Your task to perform on an android device: manage bookmarks in the chrome app Image 0: 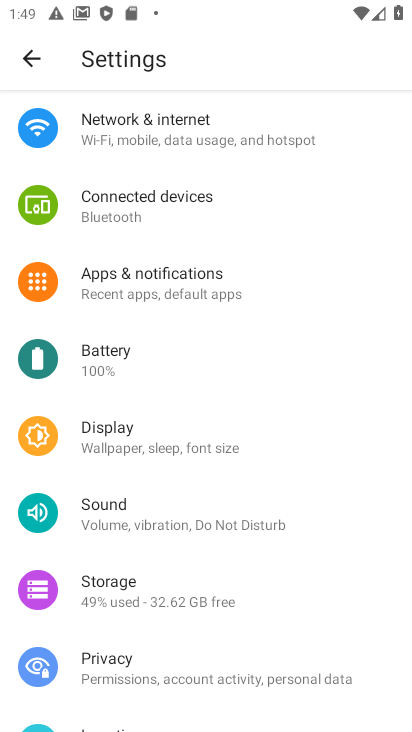
Step 0: press home button
Your task to perform on an android device: manage bookmarks in the chrome app Image 1: 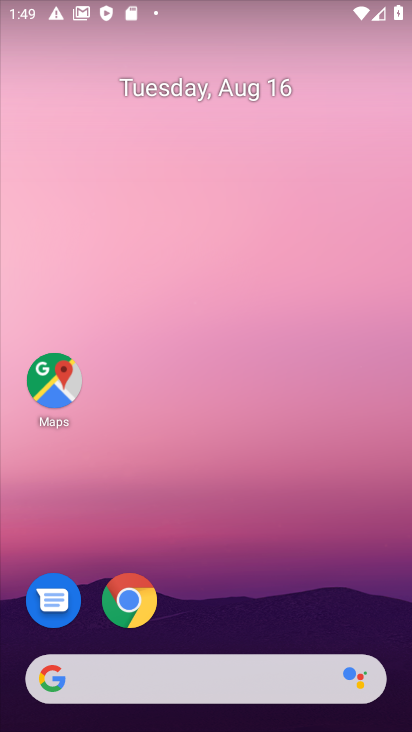
Step 1: click (141, 626)
Your task to perform on an android device: manage bookmarks in the chrome app Image 2: 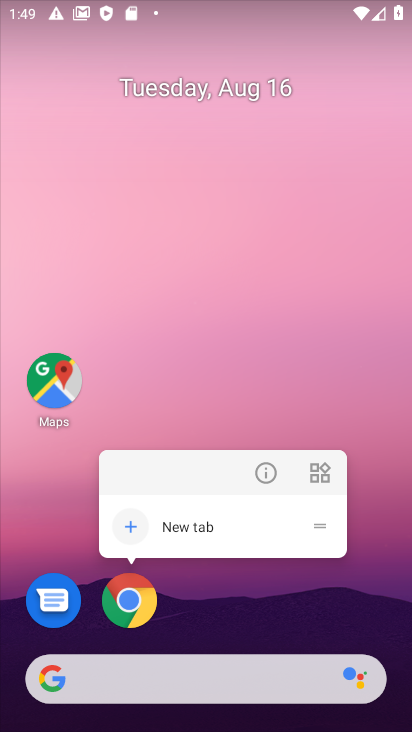
Step 2: click (111, 591)
Your task to perform on an android device: manage bookmarks in the chrome app Image 3: 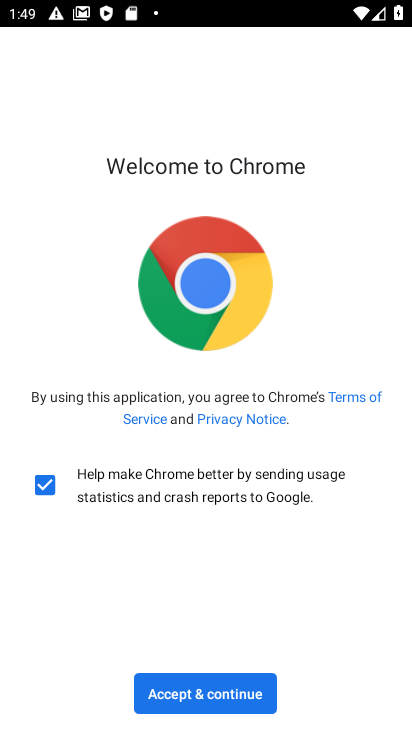
Step 3: click (217, 700)
Your task to perform on an android device: manage bookmarks in the chrome app Image 4: 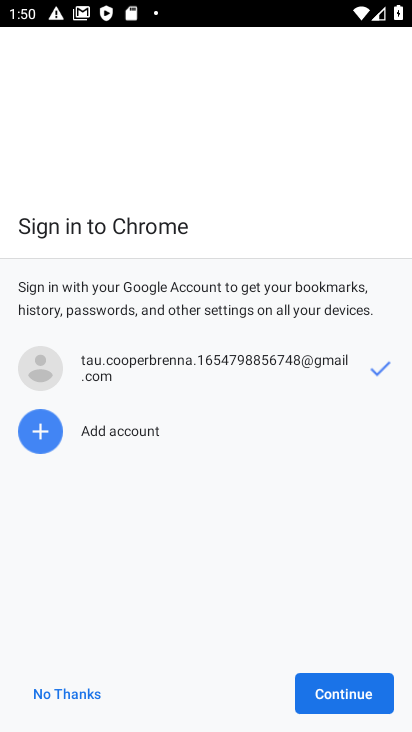
Step 4: click (331, 695)
Your task to perform on an android device: manage bookmarks in the chrome app Image 5: 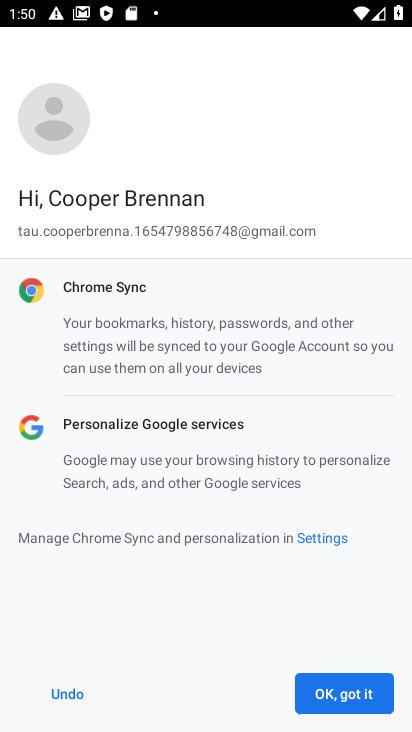
Step 5: click (348, 691)
Your task to perform on an android device: manage bookmarks in the chrome app Image 6: 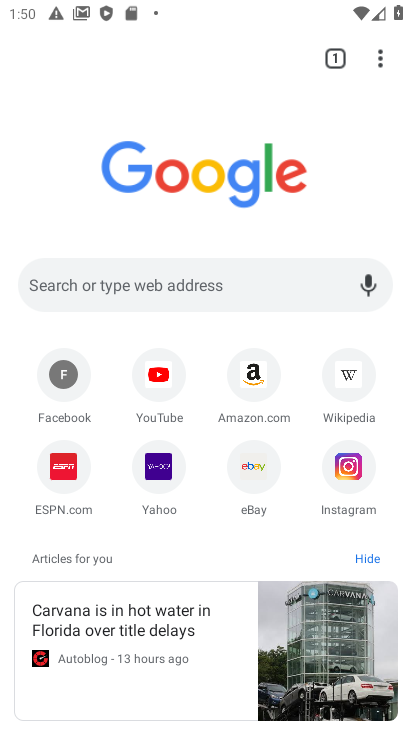
Step 6: drag from (378, 64) to (222, 224)
Your task to perform on an android device: manage bookmarks in the chrome app Image 7: 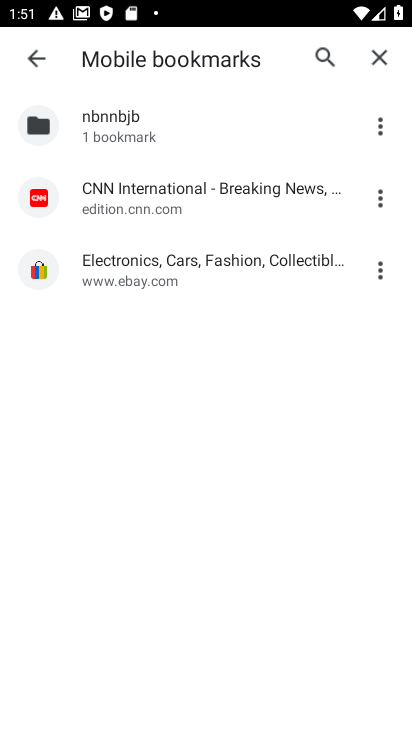
Step 7: click (165, 200)
Your task to perform on an android device: manage bookmarks in the chrome app Image 8: 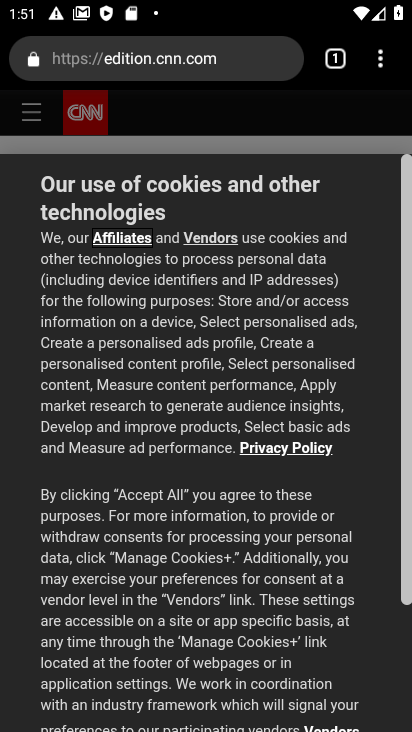
Step 8: task complete